Your task to perform on an android device: Open calendar and show me the second week of next month Image 0: 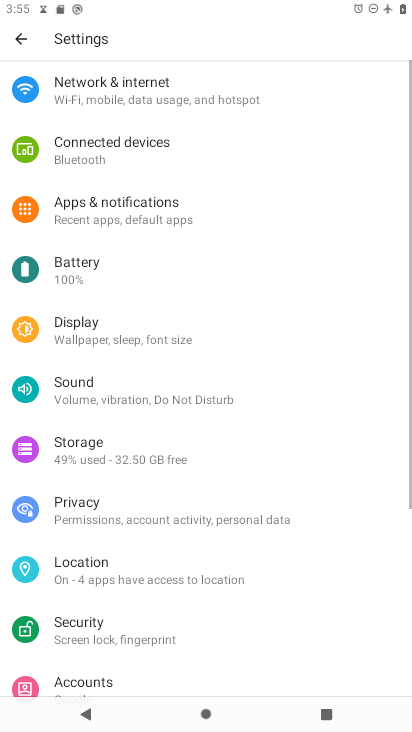
Step 0: press home button
Your task to perform on an android device: Open calendar and show me the second week of next month Image 1: 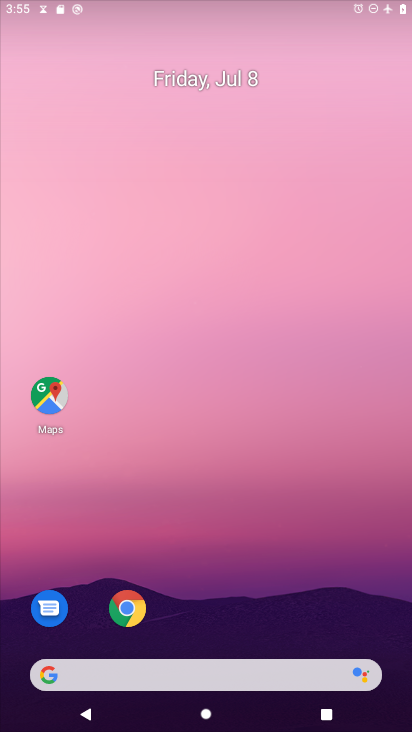
Step 1: drag from (328, 640) to (294, 0)
Your task to perform on an android device: Open calendar and show me the second week of next month Image 2: 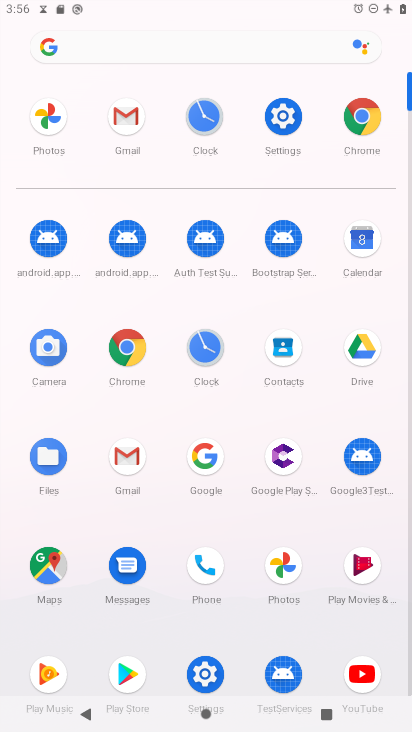
Step 2: click (357, 230)
Your task to perform on an android device: Open calendar and show me the second week of next month Image 3: 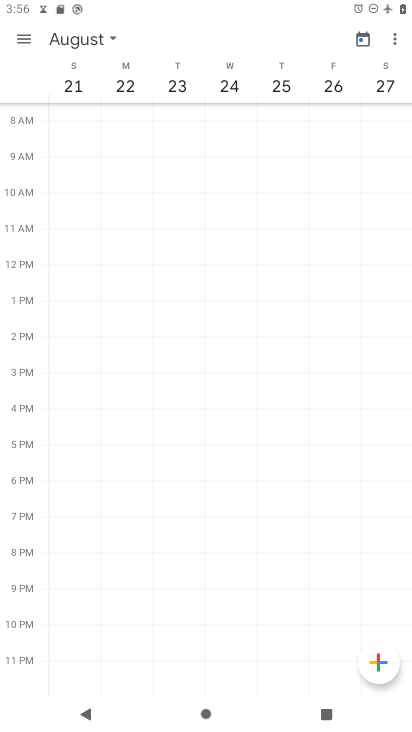
Step 3: click (105, 32)
Your task to perform on an android device: Open calendar and show me the second week of next month Image 4: 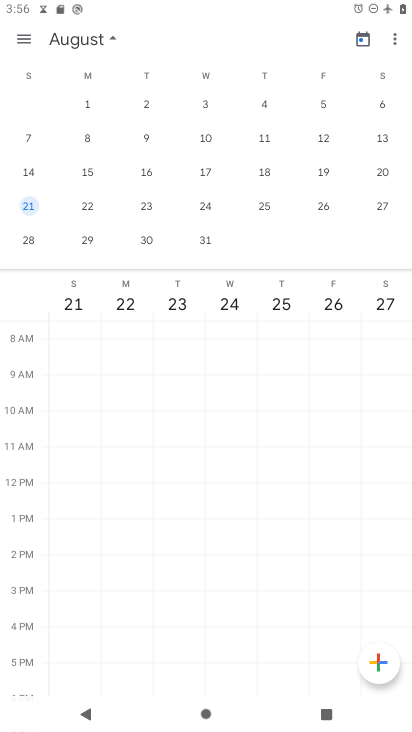
Step 4: drag from (381, 166) to (265, 189)
Your task to perform on an android device: Open calendar and show me the second week of next month Image 5: 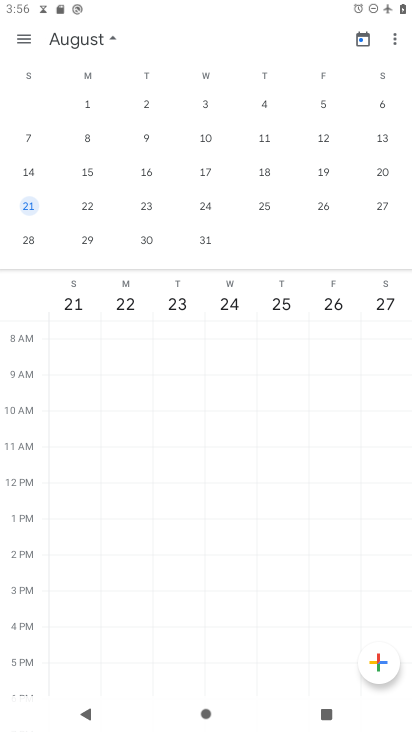
Step 5: click (211, 139)
Your task to perform on an android device: Open calendar and show me the second week of next month Image 6: 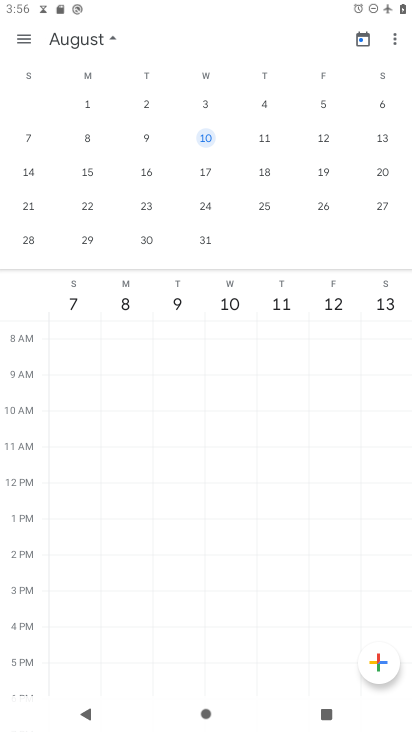
Step 6: task complete